Your task to perform on an android device: remove spam from my inbox in the gmail app Image 0: 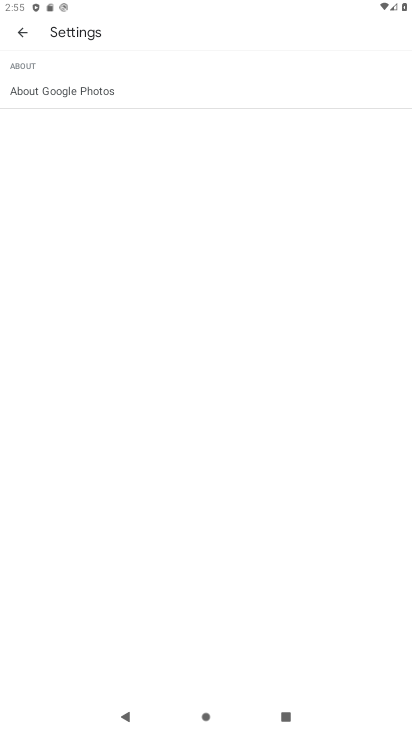
Step 0: press home button
Your task to perform on an android device: remove spam from my inbox in the gmail app Image 1: 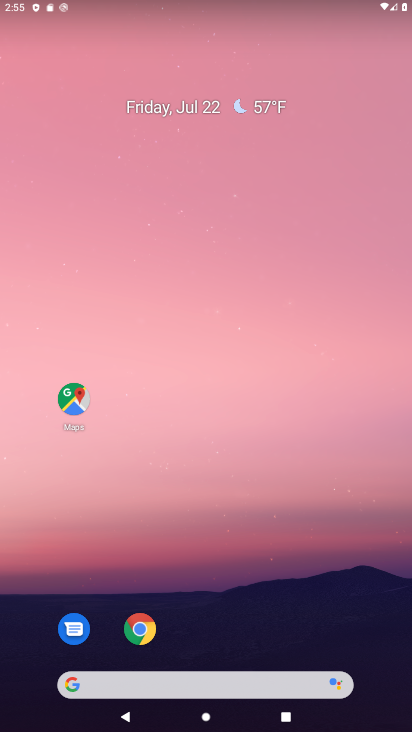
Step 1: drag from (301, 617) to (274, 87)
Your task to perform on an android device: remove spam from my inbox in the gmail app Image 2: 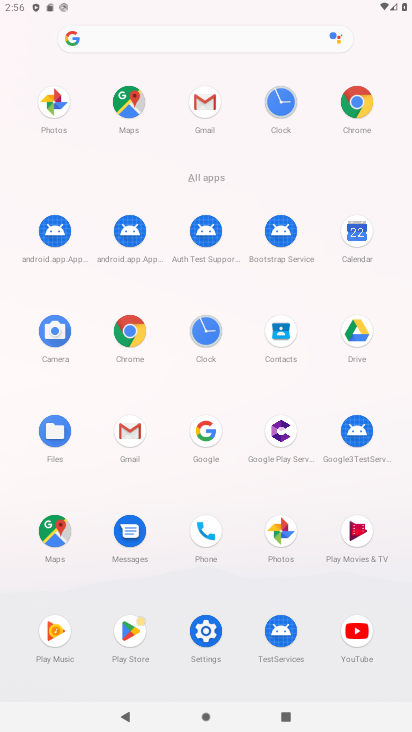
Step 2: click (199, 99)
Your task to perform on an android device: remove spam from my inbox in the gmail app Image 3: 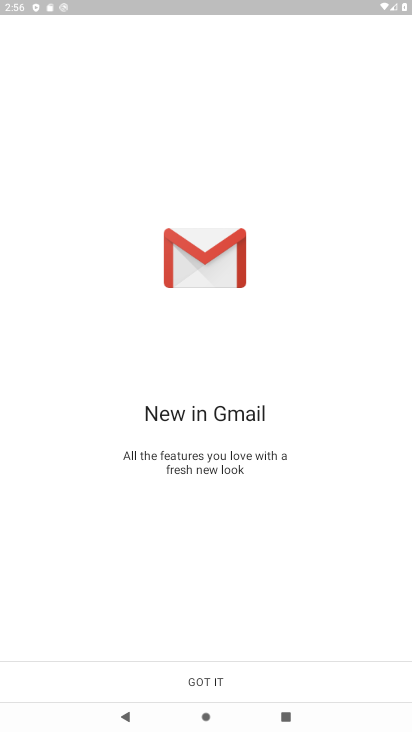
Step 3: click (212, 681)
Your task to perform on an android device: remove spam from my inbox in the gmail app Image 4: 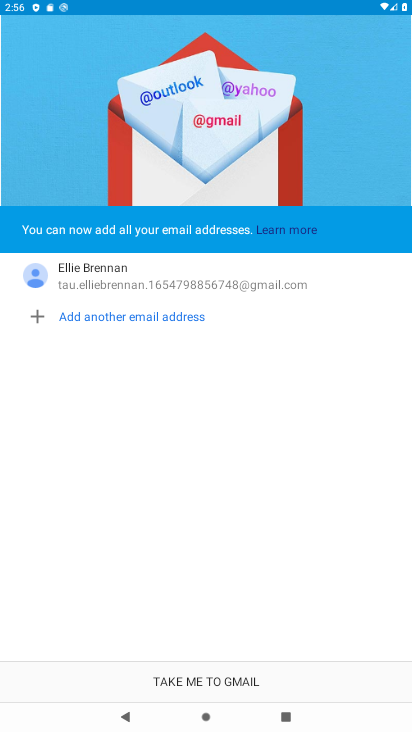
Step 4: click (212, 681)
Your task to perform on an android device: remove spam from my inbox in the gmail app Image 5: 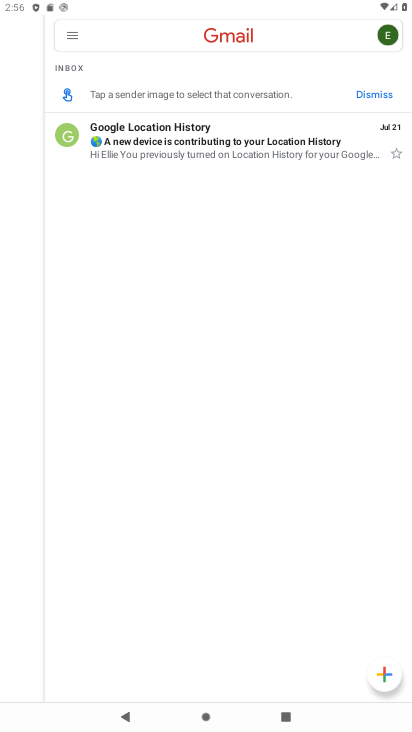
Step 5: click (70, 39)
Your task to perform on an android device: remove spam from my inbox in the gmail app Image 6: 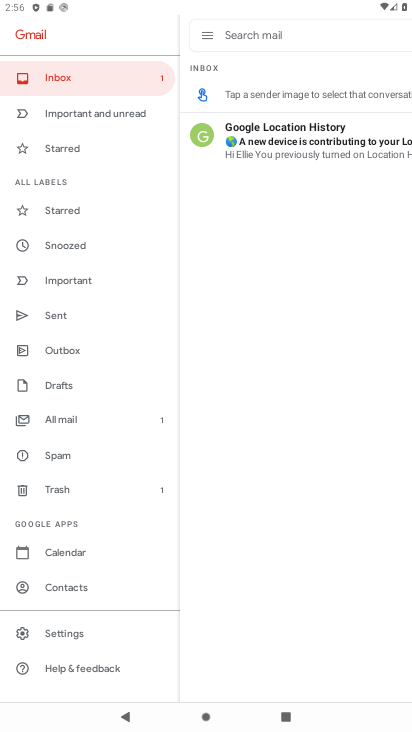
Step 6: click (75, 458)
Your task to perform on an android device: remove spam from my inbox in the gmail app Image 7: 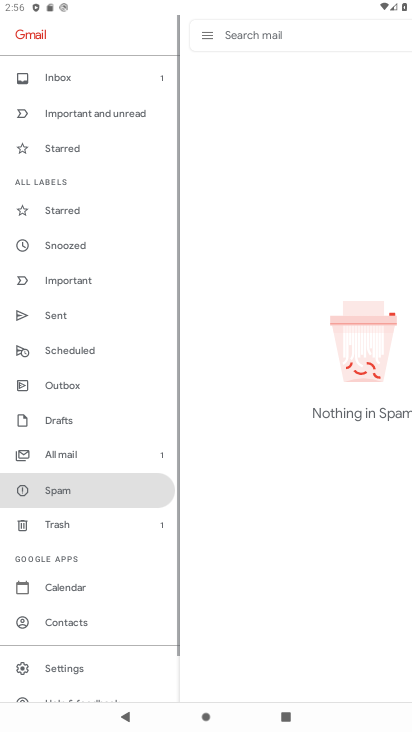
Step 7: task complete